Your task to perform on an android device: turn on wifi Image 0: 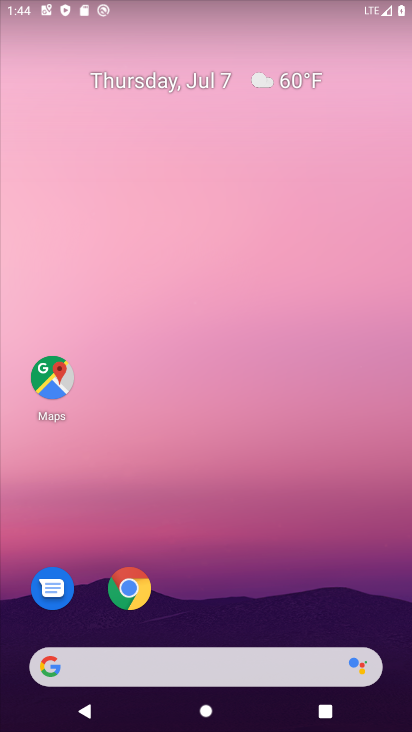
Step 0: drag from (258, 583) to (268, 268)
Your task to perform on an android device: turn on wifi Image 1: 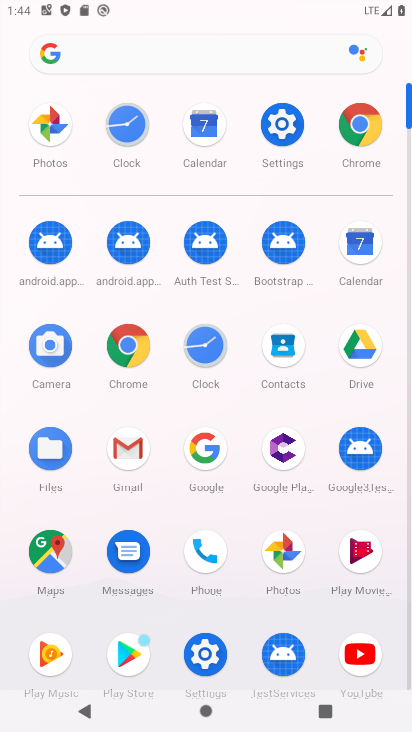
Step 1: click (276, 120)
Your task to perform on an android device: turn on wifi Image 2: 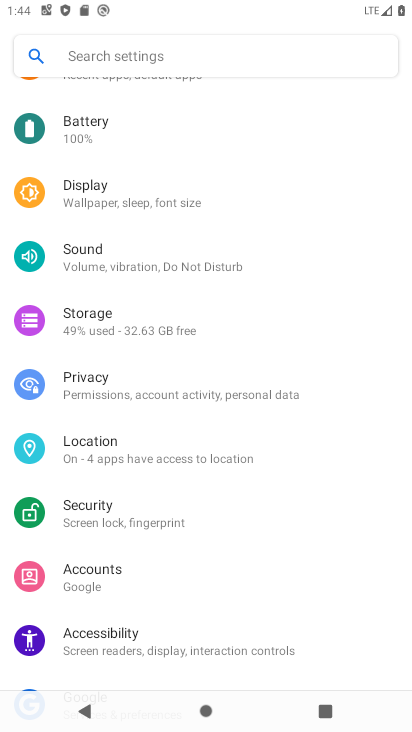
Step 2: drag from (242, 104) to (211, 585)
Your task to perform on an android device: turn on wifi Image 3: 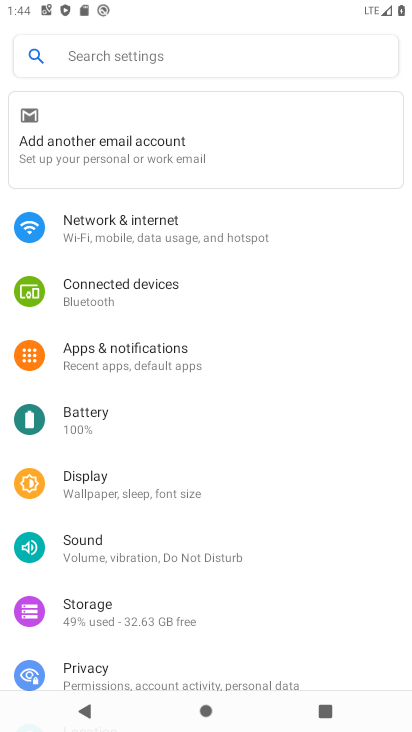
Step 3: click (177, 239)
Your task to perform on an android device: turn on wifi Image 4: 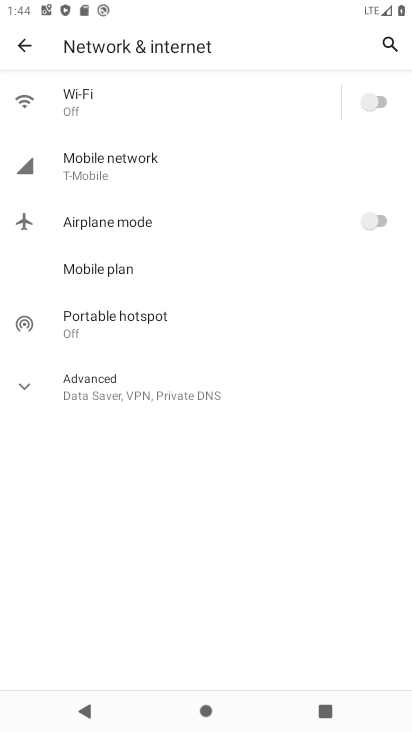
Step 4: click (377, 99)
Your task to perform on an android device: turn on wifi Image 5: 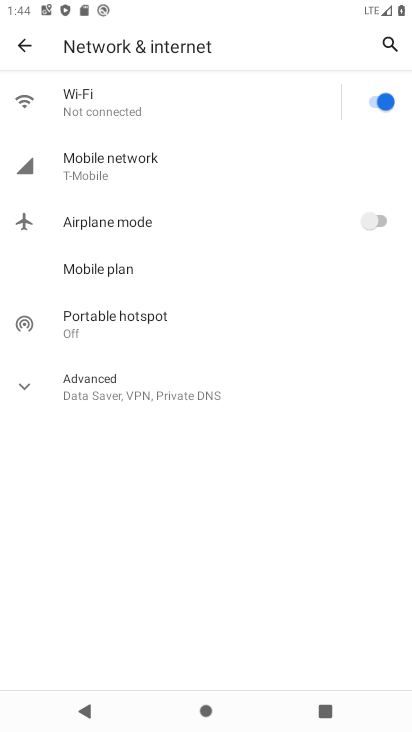
Step 5: task complete